Your task to perform on an android device: open the mobile data screen to see how much data has been used Image 0: 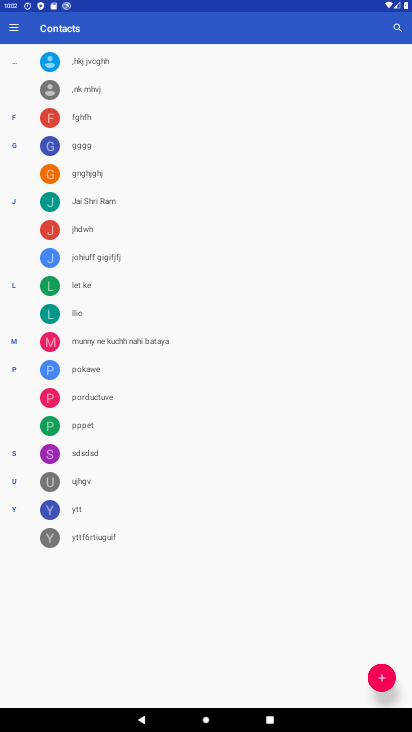
Step 0: press home button
Your task to perform on an android device: open the mobile data screen to see how much data has been used Image 1: 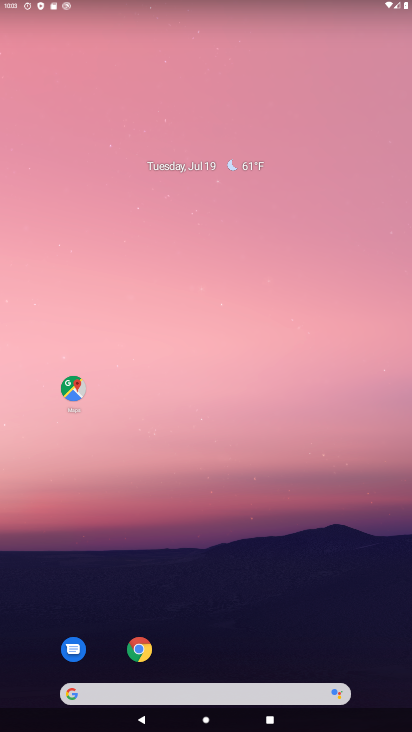
Step 1: drag from (343, 3) to (272, 409)
Your task to perform on an android device: open the mobile data screen to see how much data has been used Image 2: 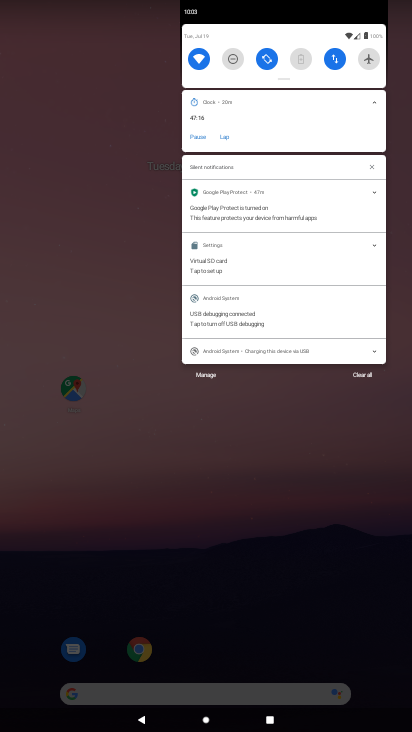
Step 2: click (336, 63)
Your task to perform on an android device: open the mobile data screen to see how much data has been used Image 3: 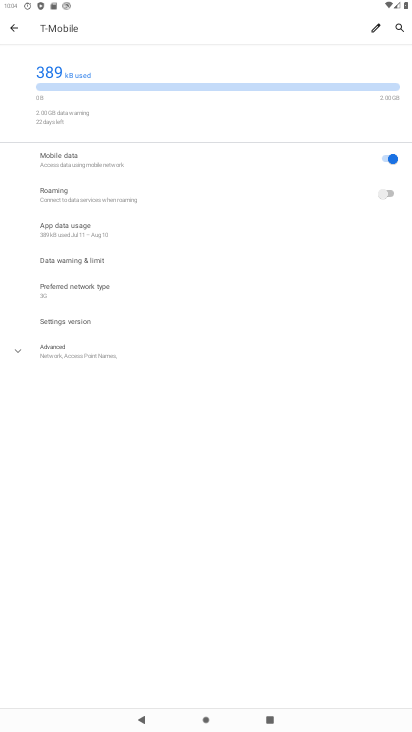
Step 3: task complete